Your task to perform on an android device: add a contact Image 0: 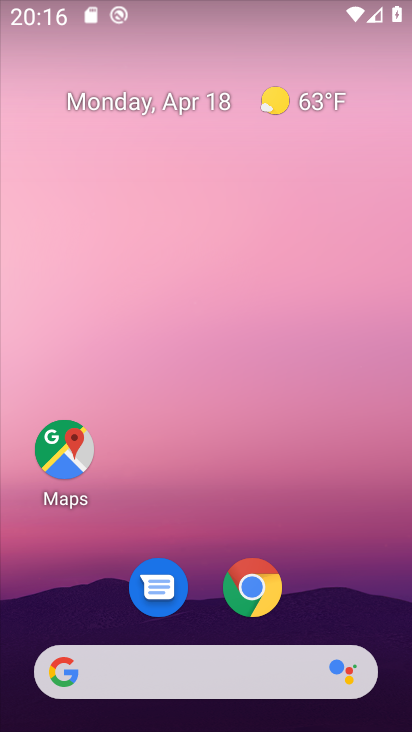
Step 0: drag from (326, 621) to (320, 107)
Your task to perform on an android device: add a contact Image 1: 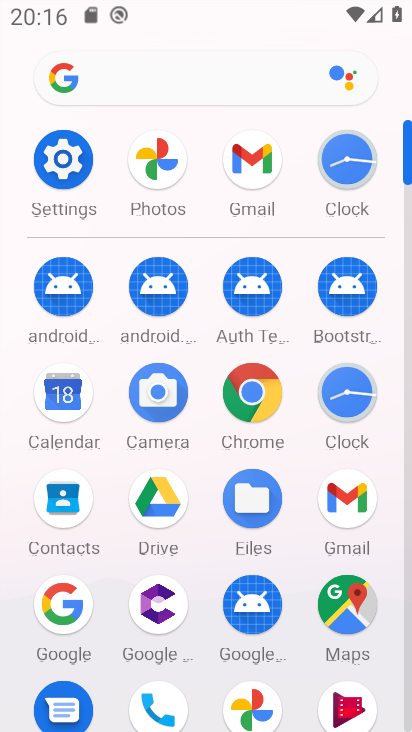
Step 1: drag from (408, 172) to (379, 341)
Your task to perform on an android device: add a contact Image 2: 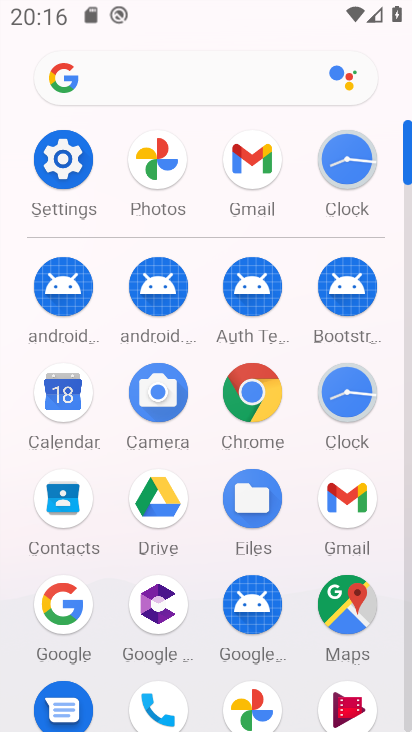
Step 2: click (406, 486)
Your task to perform on an android device: add a contact Image 3: 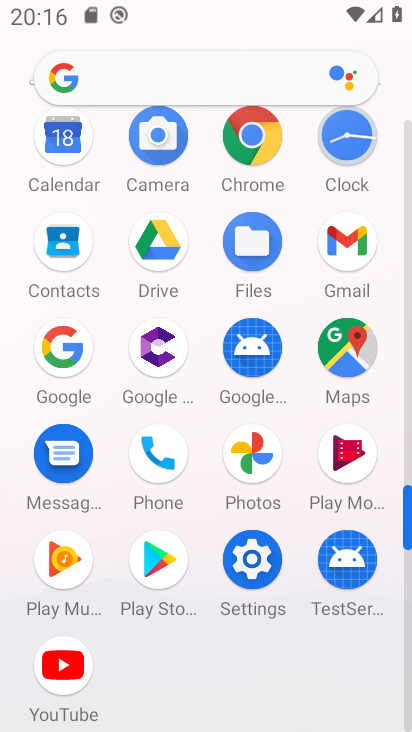
Step 3: click (184, 465)
Your task to perform on an android device: add a contact Image 4: 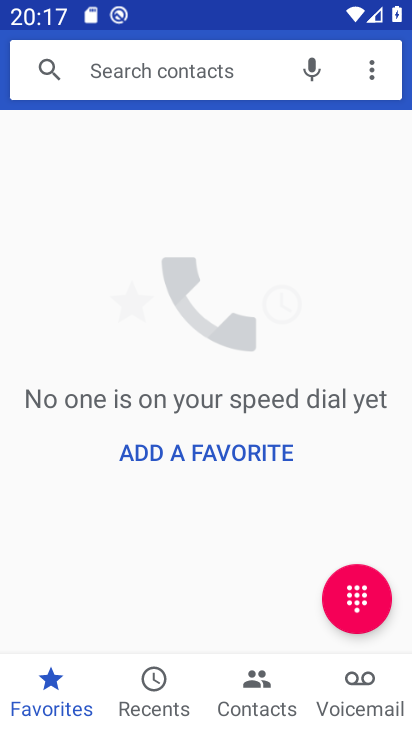
Step 4: press home button
Your task to perform on an android device: add a contact Image 5: 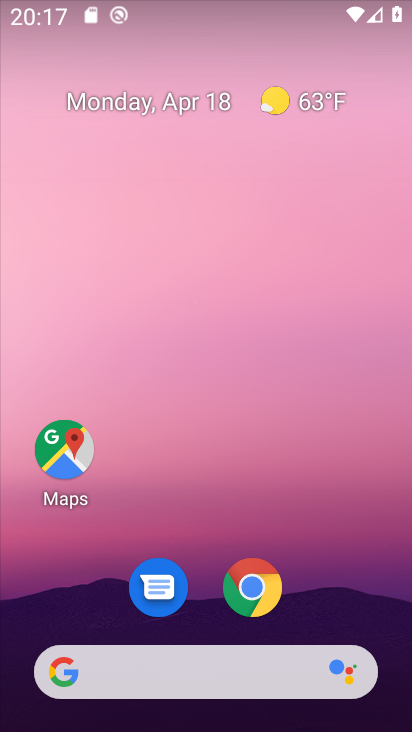
Step 5: drag from (305, 595) to (295, 26)
Your task to perform on an android device: add a contact Image 6: 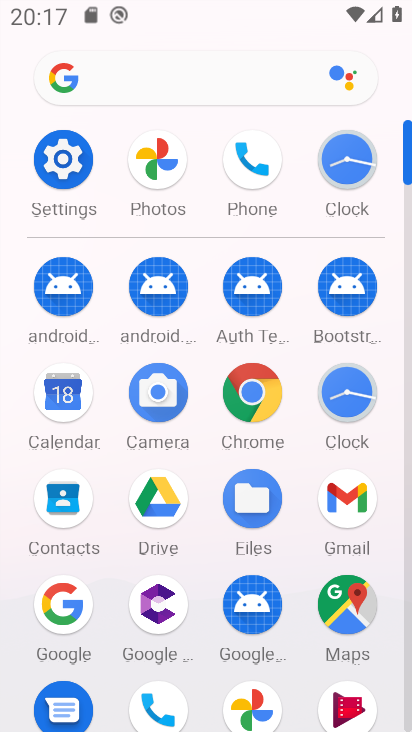
Step 6: click (74, 502)
Your task to perform on an android device: add a contact Image 7: 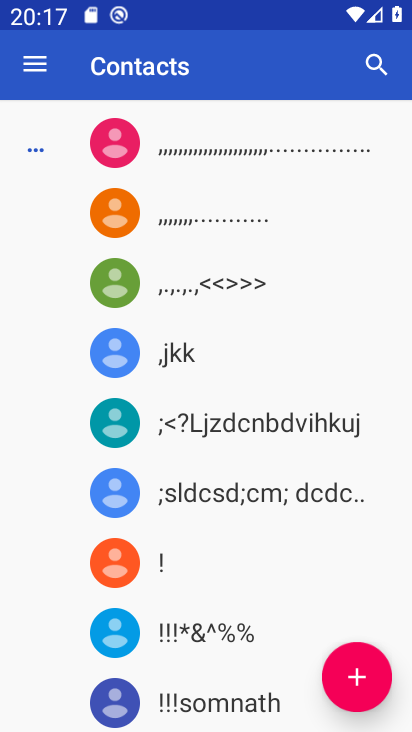
Step 7: click (355, 674)
Your task to perform on an android device: add a contact Image 8: 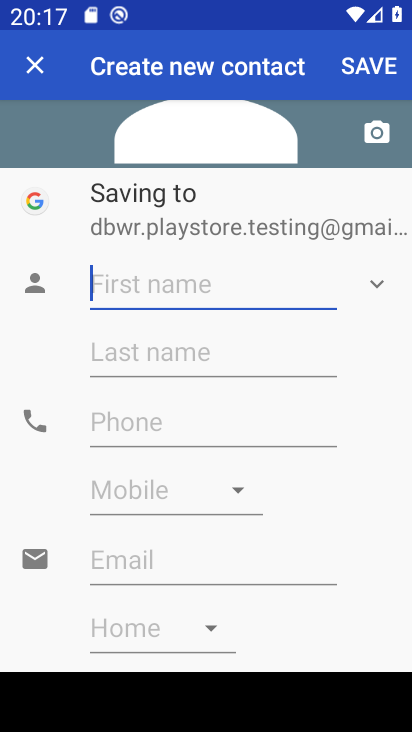
Step 8: type "acasc"
Your task to perform on an android device: add a contact Image 9: 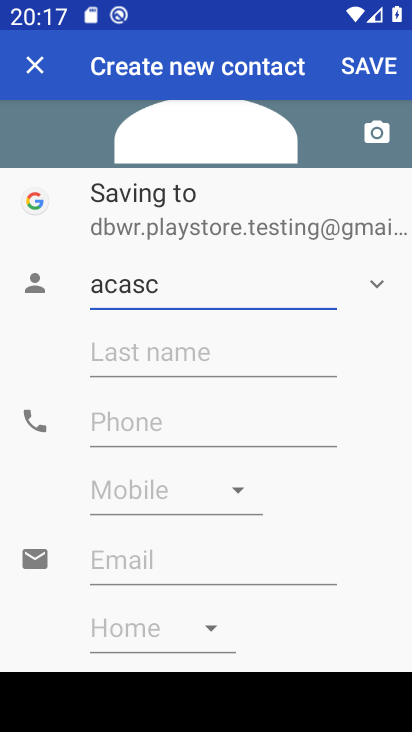
Step 9: click (237, 331)
Your task to perform on an android device: add a contact Image 10: 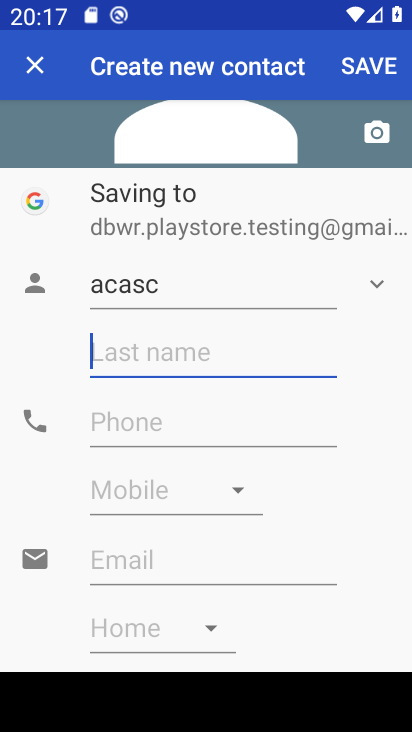
Step 10: click (210, 352)
Your task to perform on an android device: add a contact Image 11: 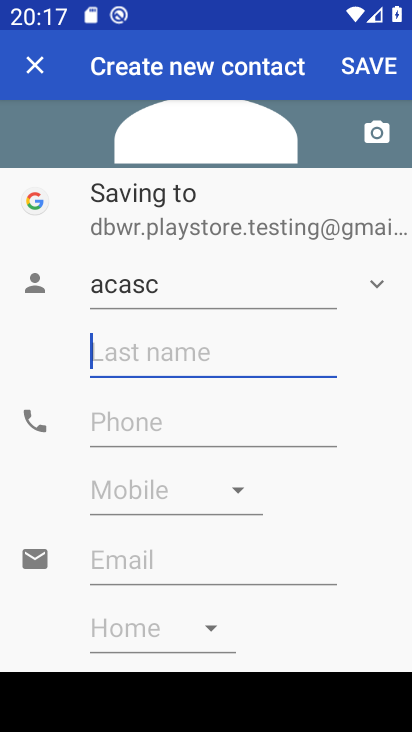
Step 11: type "acac"
Your task to perform on an android device: add a contact Image 12: 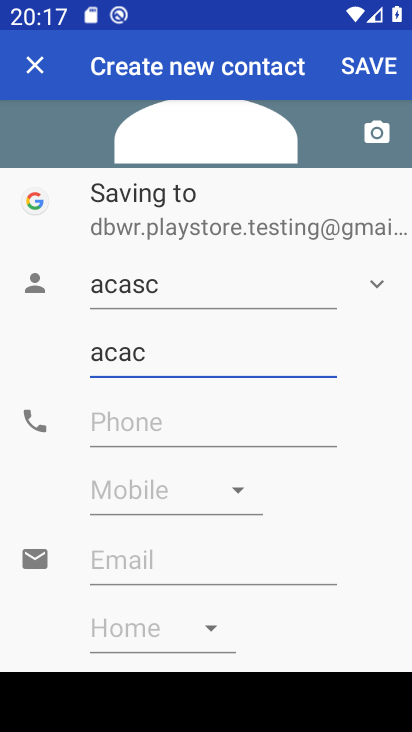
Step 12: click (261, 411)
Your task to perform on an android device: add a contact Image 13: 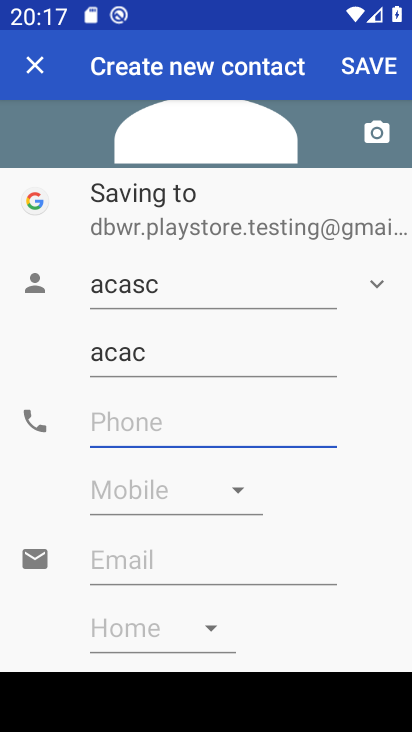
Step 13: type "49838958935"
Your task to perform on an android device: add a contact Image 14: 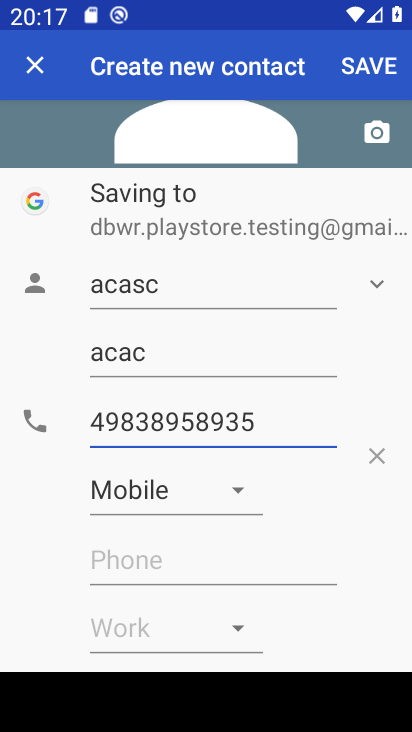
Step 14: click (366, 62)
Your task to perform on an android device: add a contact Image 15: 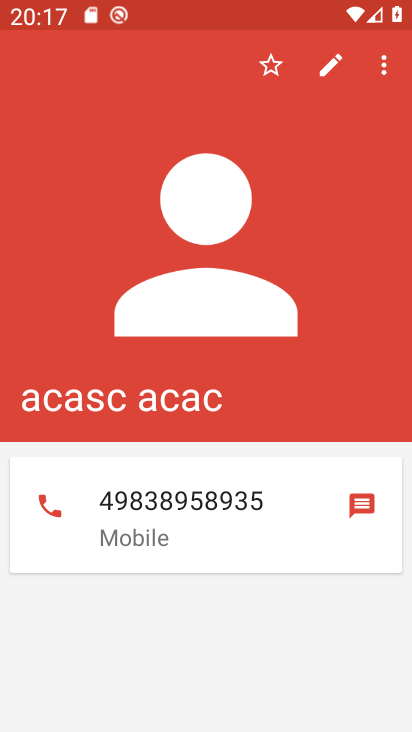
Step 15: task complete